Your task to perform on an android device: toggle sleep mode Image 0: 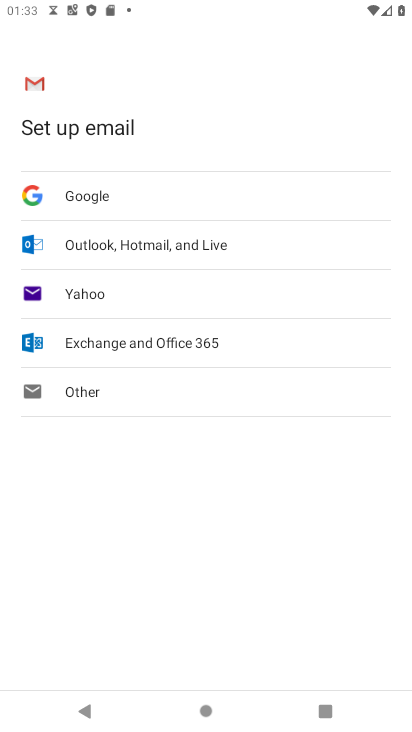
Step 0: press home button
Your task to perform on an android device: toggle sleep mode Image 1: 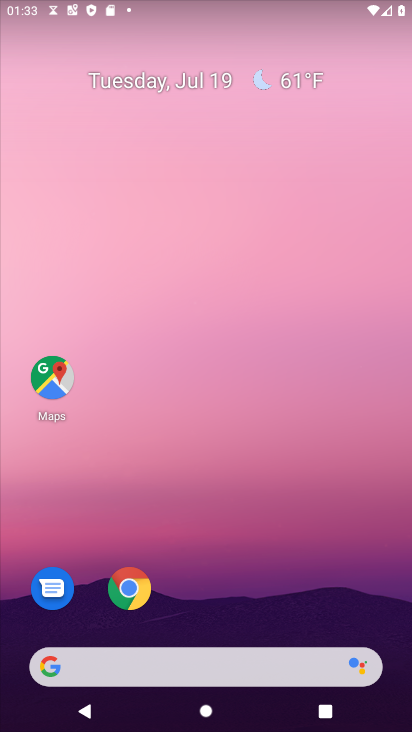
Step 1: drag from (284, 690) to (243, 230)
Your task to perform on an android device: toggle sleep mode Image 2: 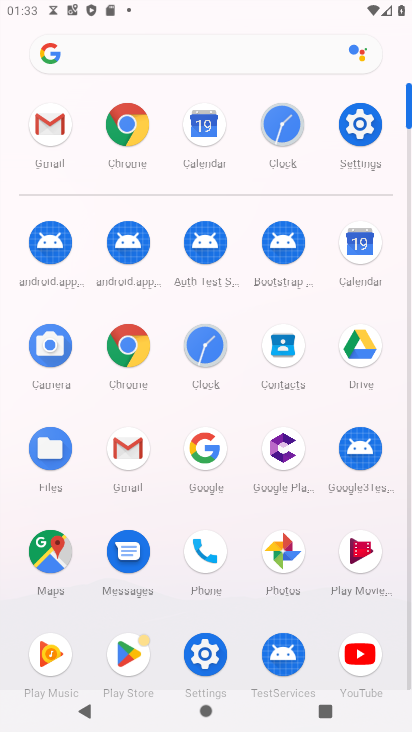
Step 2: click (373, 115)
Your task to perform on an android device: toggle sleep mode Image 3: 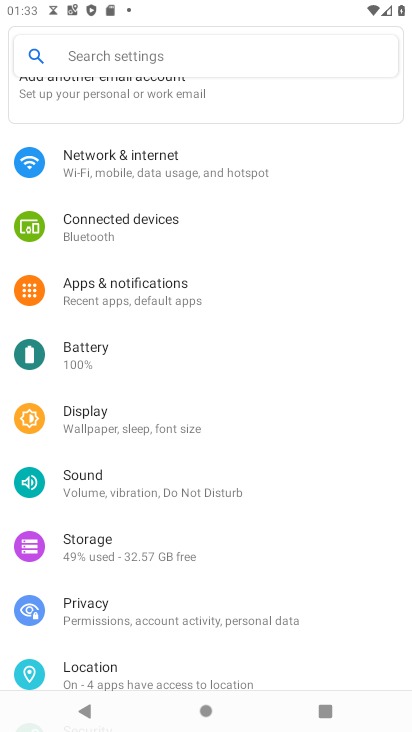
Step 3: click (124, 61)
Your task to perform on an android device: toggle sleep mode Image 4: 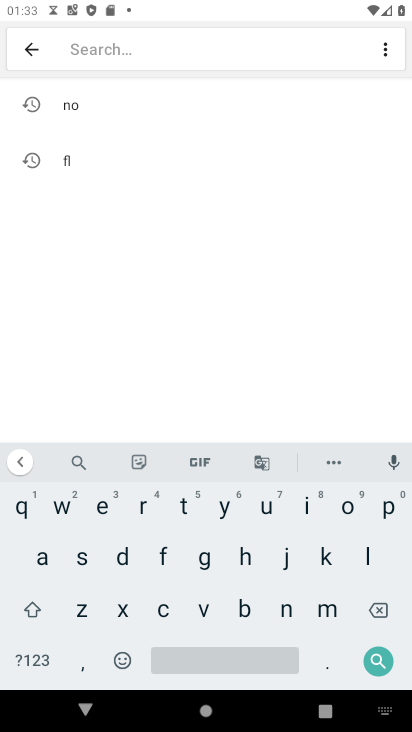
Step 4: click (85, 556)
Your task to perform on an android device: toggle sleep mode Image 5: 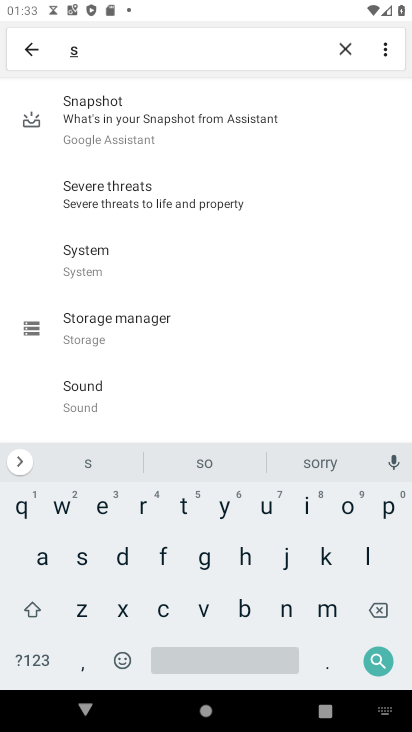
Step 5: click (375, 559)
Your task to perform on an android device: toggle sleep mode Image 6: 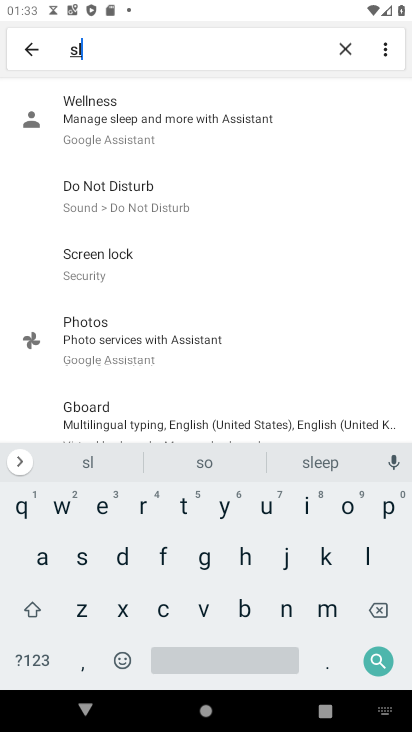
Step 6: click (119, 202)
Your task to perform on an android device: toggle sleep mode Image 7: 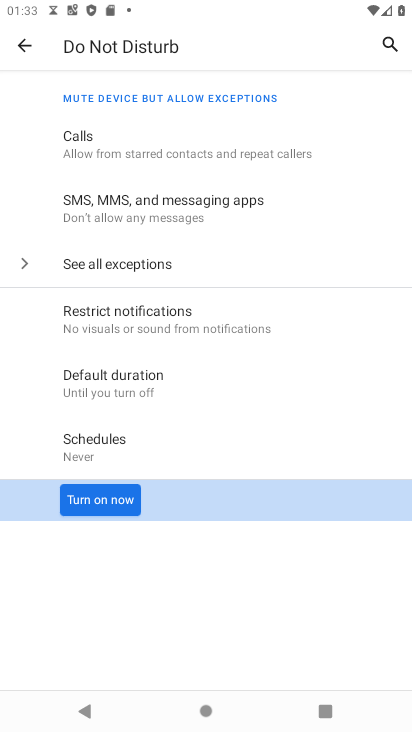
Step 7: click (93, 501)
Your task to perform on an android device: toggle sleep mode Image 8: 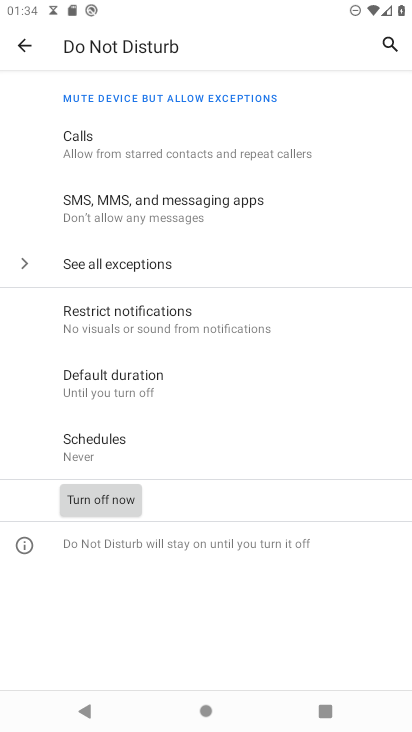
Step 8: task complete